Your task to perform on an android device: When is my next meeting? Image 0: 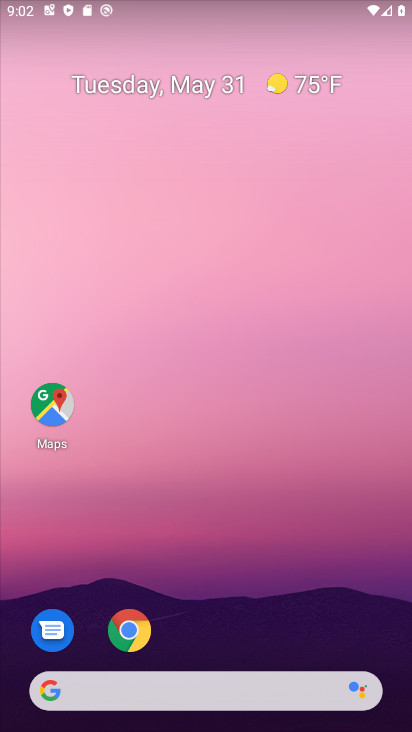
Step 0: drag from (250, 645) to (231, 161)
Your task to perform on an android device: When is my next meeting? Image 1: 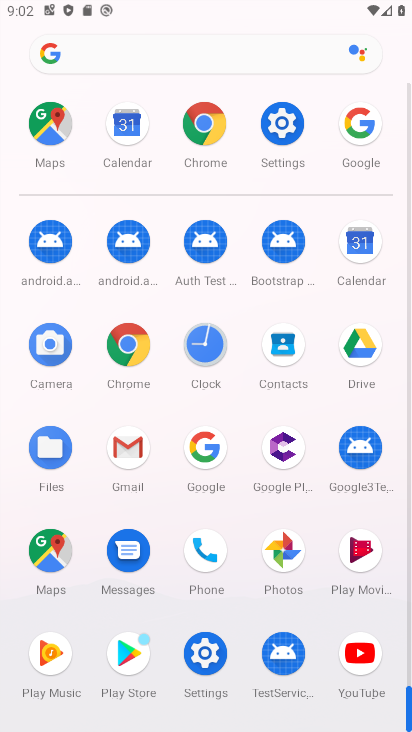
Step 1: click (361, 262)
Your task to perform on an android device: When is my next meeting? Image 2: 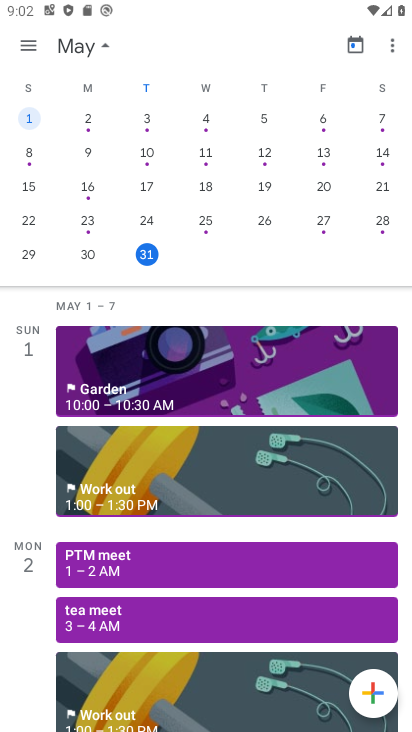
Step 2: click (151, 262)
Your task to perform on an android device: When is my next meeting? Image 3: 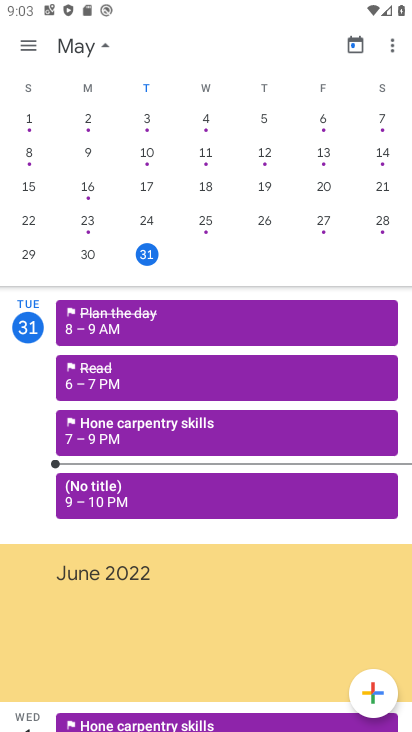
Step 3: task complete